Your task to perform on an android device: Go to location settings Image 0: 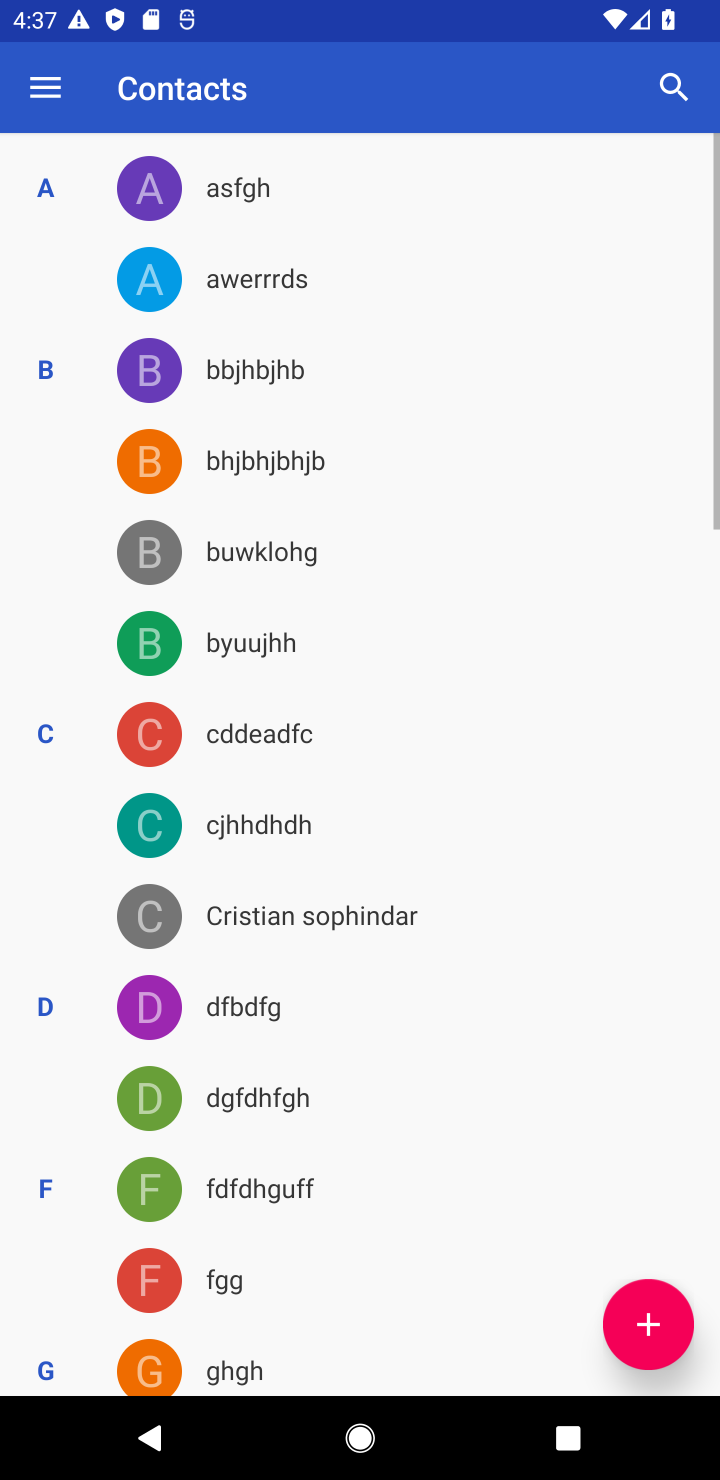
Step 0: press back button
Your task to perform on an android device: Go to location settings Image 1: 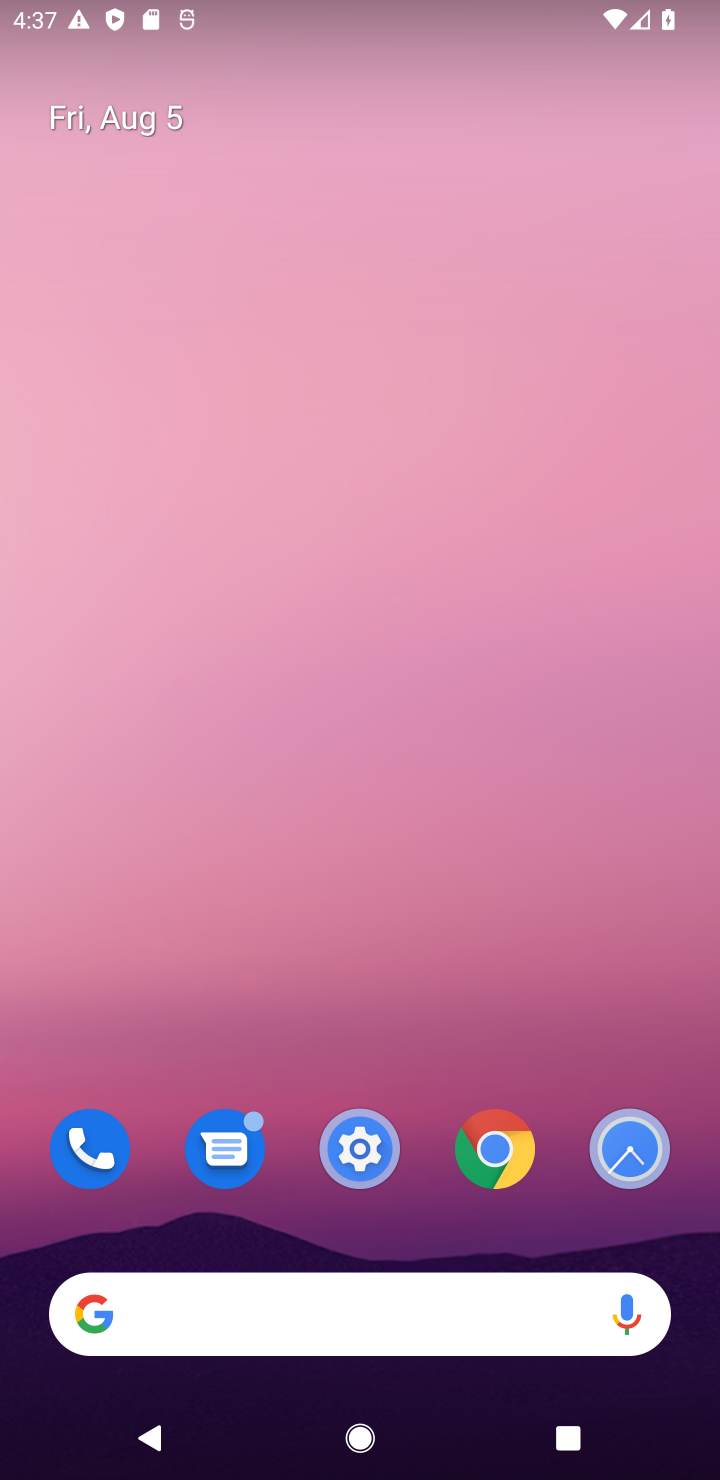
Step 1: click (353, 1159)
Your task to perform on an android device: Go to location settings Image 2: 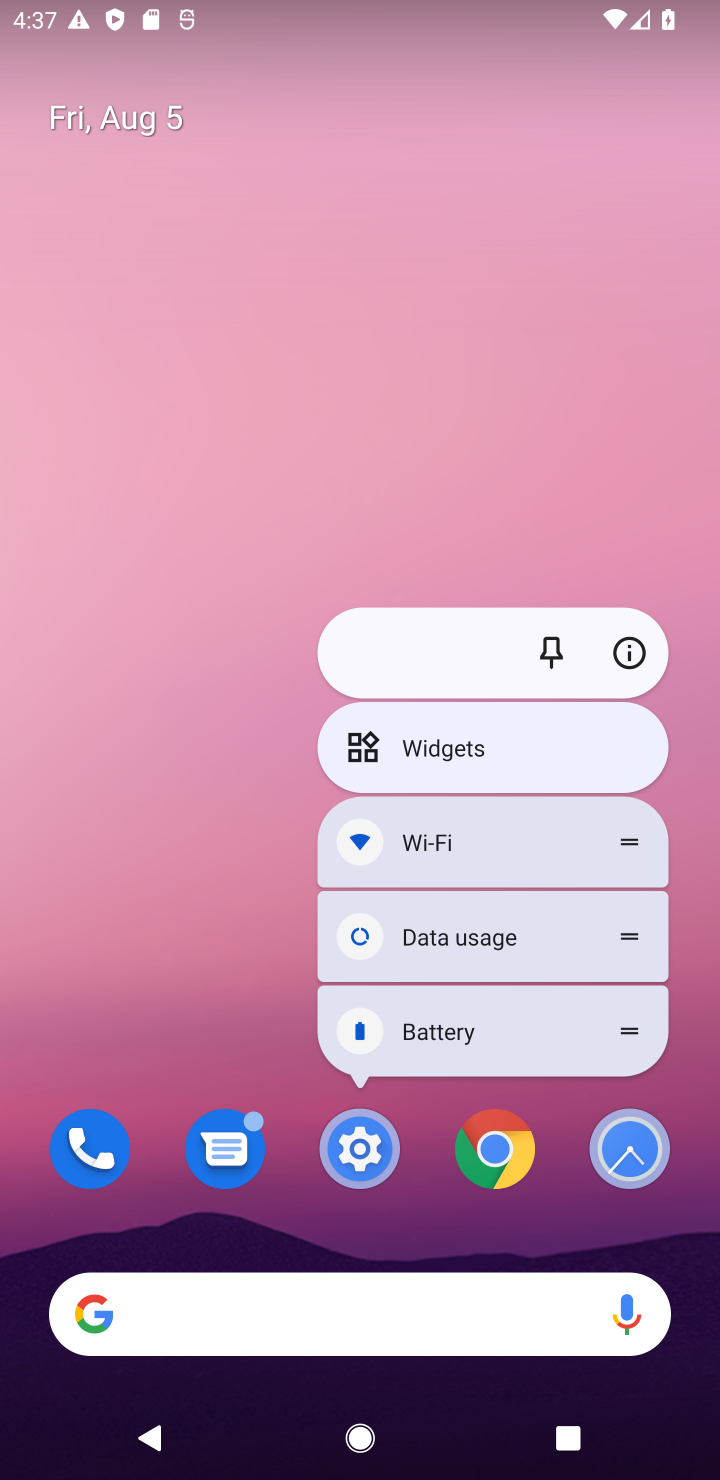
Step 2: click (351, 1155)
Your task to perform on an android device: Go to location settings Image 3: 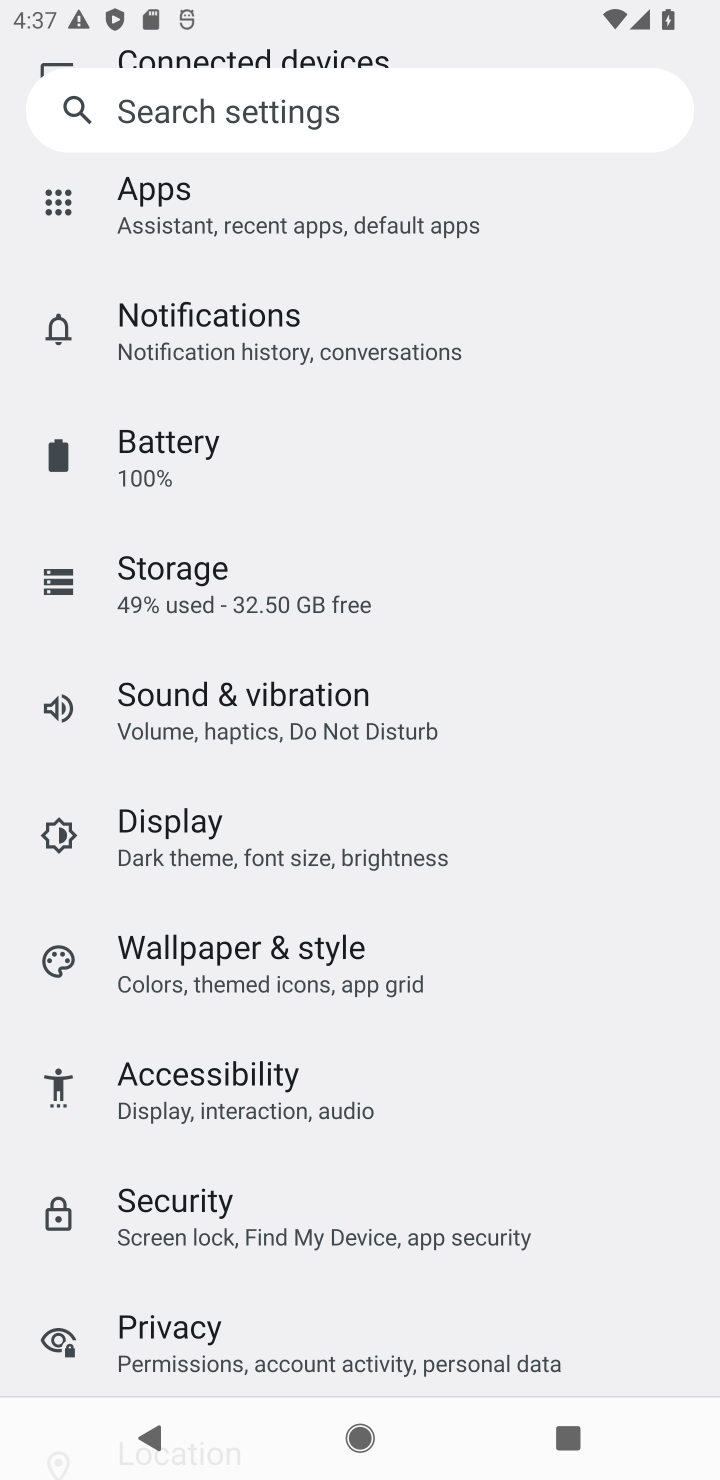
Step 3: drag from (449, 322) to (573, 560)
Your task to perform on an android device: Go to location settings Image 4: 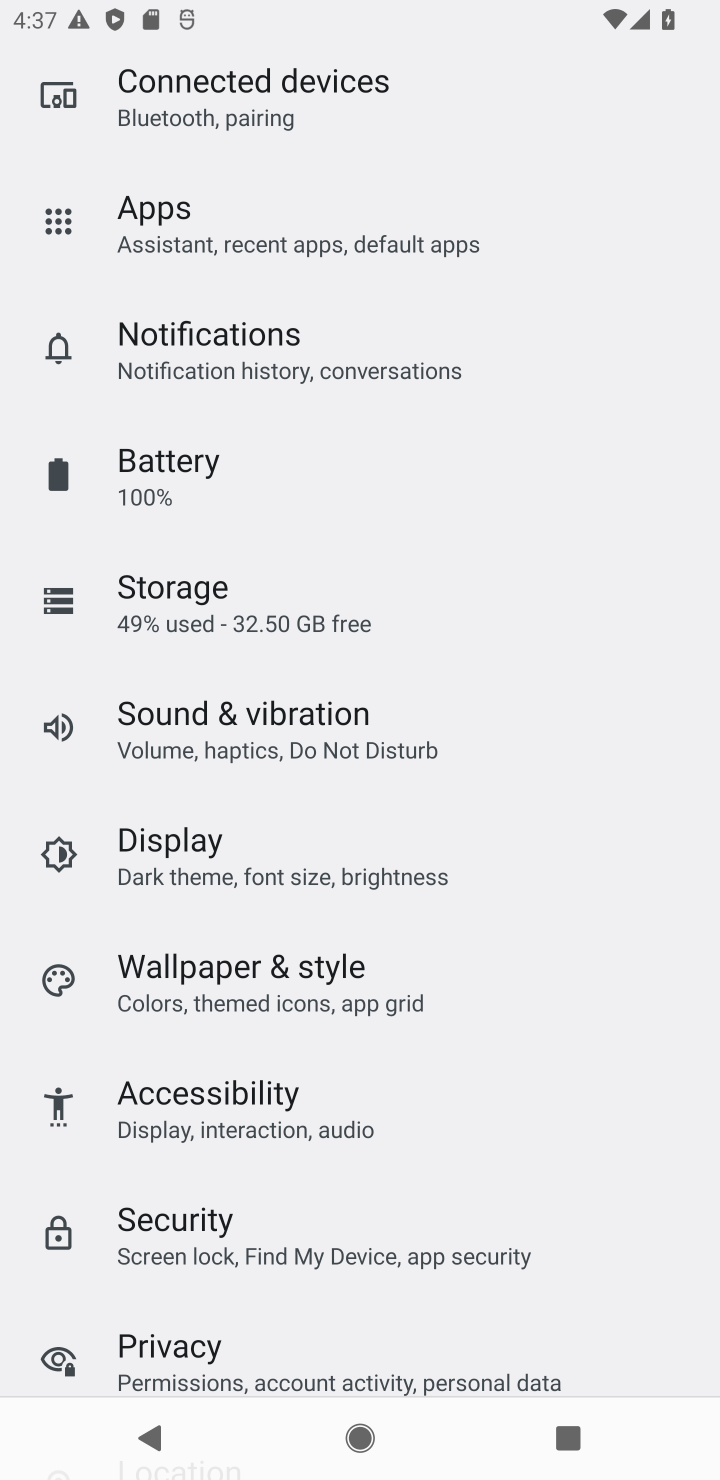
Step 4: drag from (250, 1327) to (415, 322)
Your task to perform on an android device: Go to location settings Image 5: 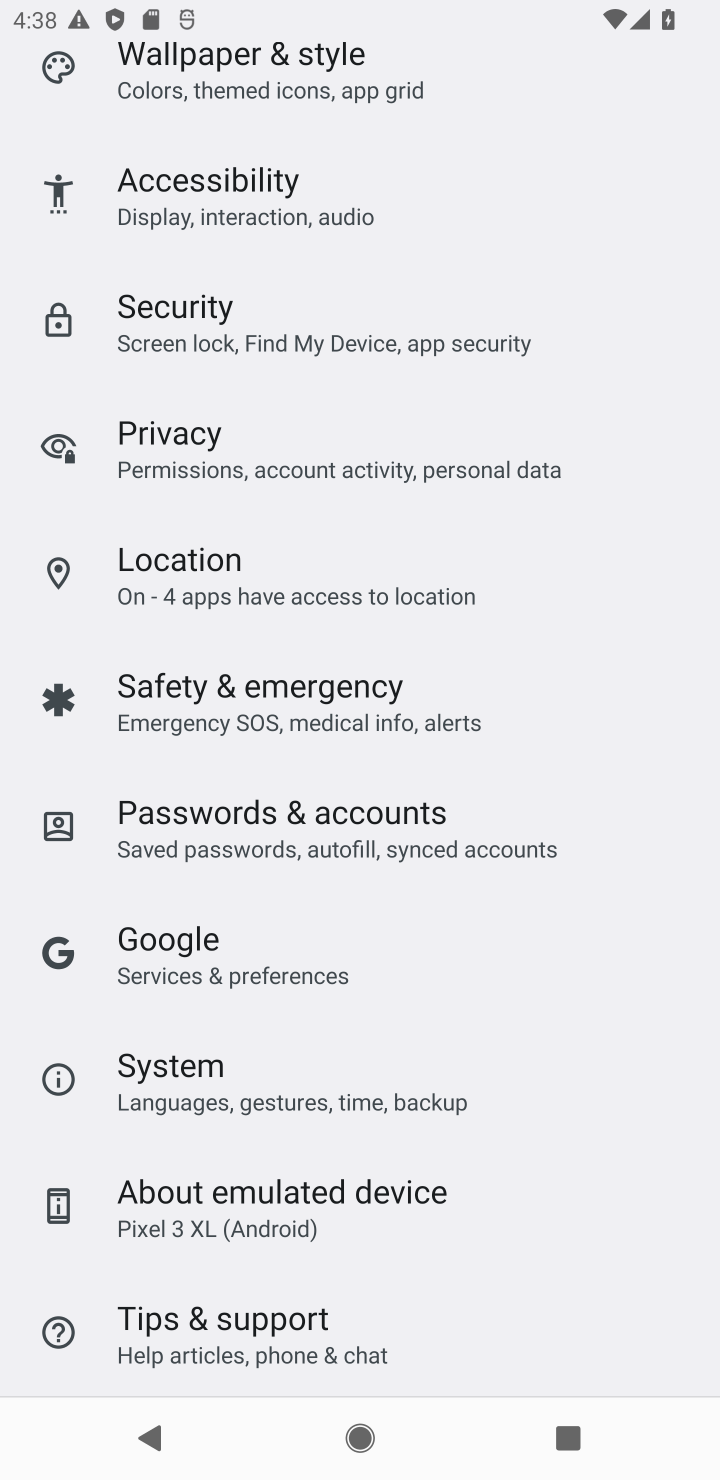
Step 5: click (202, 579)
Your task to perform on an android device: Go to location settings Image 6: 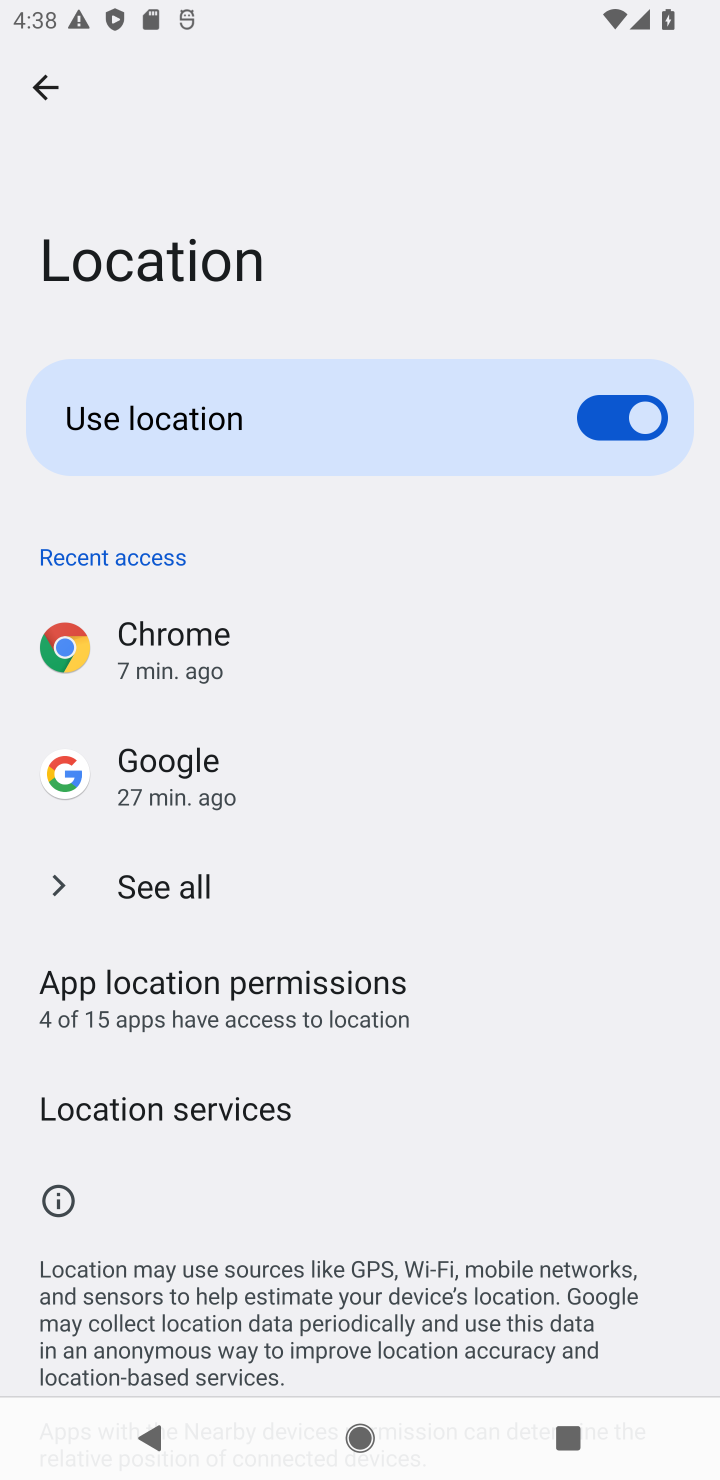
Step 6: task complete